Your task to perform on an android device: choose inbox layout in the gmail app Image 0: 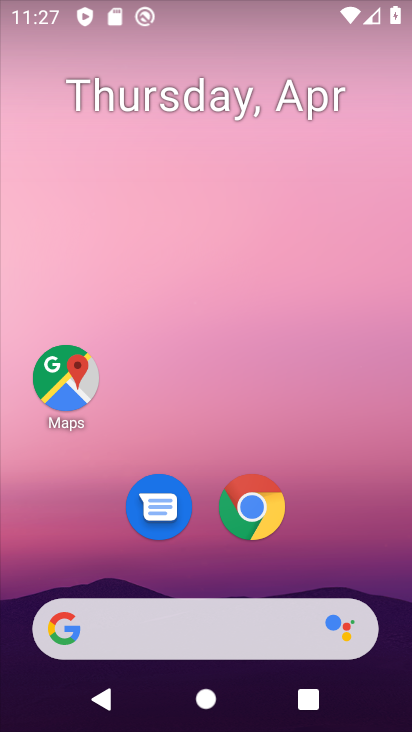
Step 0: drag from (214, 728) to (219, 92)
Your task to perform on an android device: choose inbox layout in the gmail app Image 1: 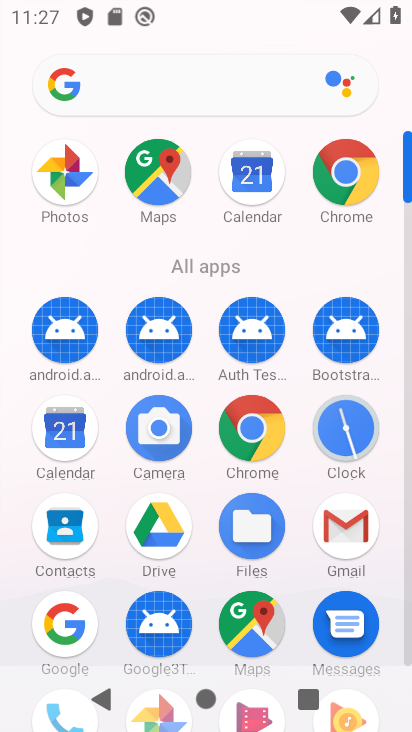
Step 1: click (352, 526)
Your task to perform on an android device: choose inbox layout in the gmail app Image 2: 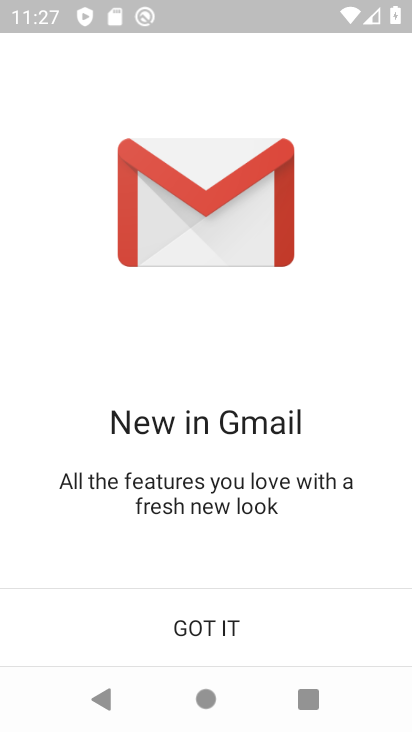
Step 2: click (191, 624)
Your task to perform on an android device: choose inbox layout in the gmail app Image 3: 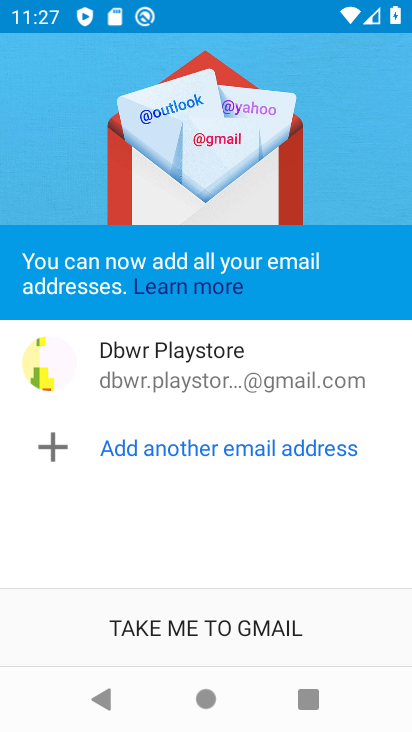
Step 3: click (202, 619)
Your task to perform on an android device: choose inbox layout in the gmail app Image 4: 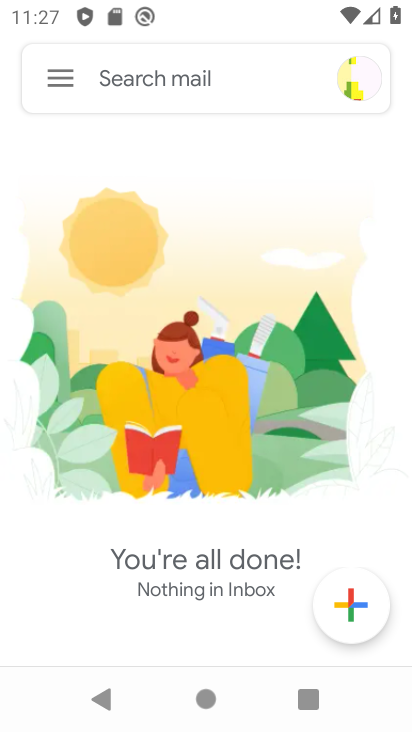
Step 4: click (62, 78)
Your task to perform on an android device: choose inbox layout in the gmail app Image 5: 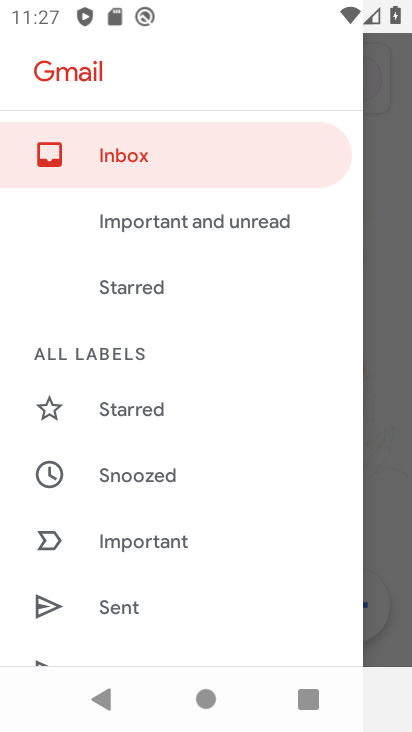
Step 5: drag from (125, 595) to (123, 143)
Your task to perform on an android device: choose inbox layout in the gmail app Image 6: 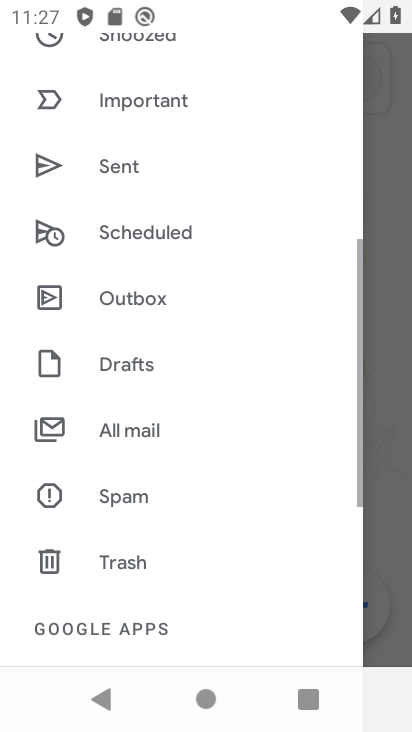
Step 6: drag from (165, 584) to (162, 208)
Your task to perform on an android device: choose inbox layout in the gmail app Image 7: 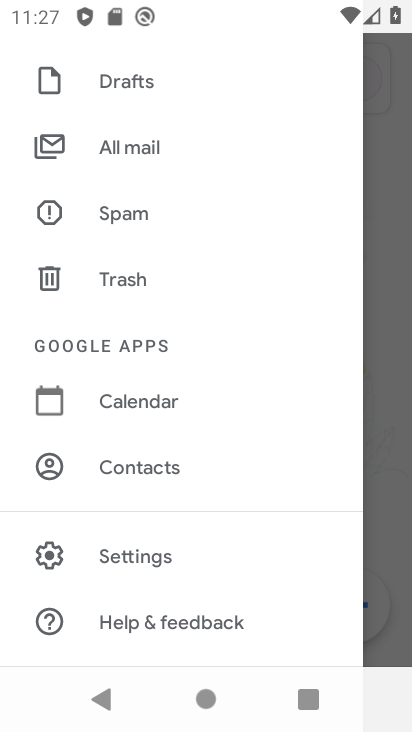
Step 7: click (145, 555)
Your task to perform on an android device: choose inbox layout in the gmail app Image 8: 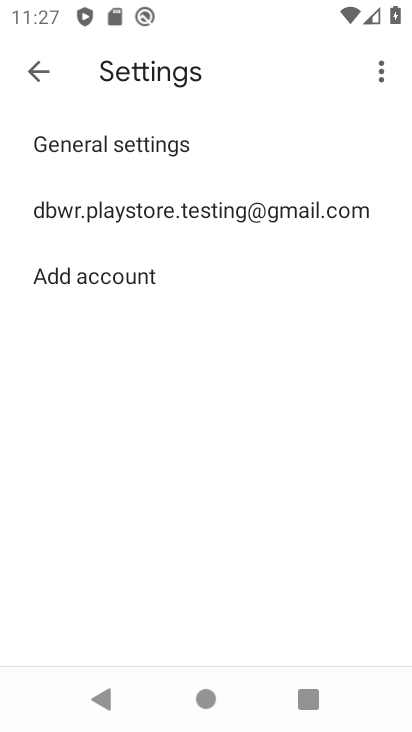
Step 8: click (201, 208)
Your task to perform on an android device: choose inbox layout in the gmail app Image 9: 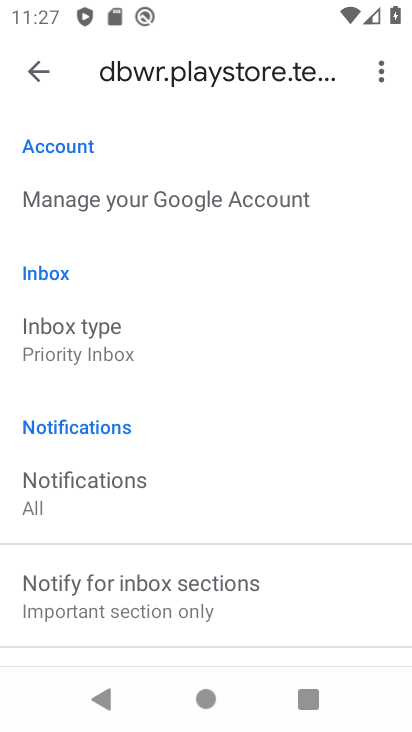
Step 9: click (75, 348)
Your task to perform on an android device: choose inbox layout in the gmail app Image 10: 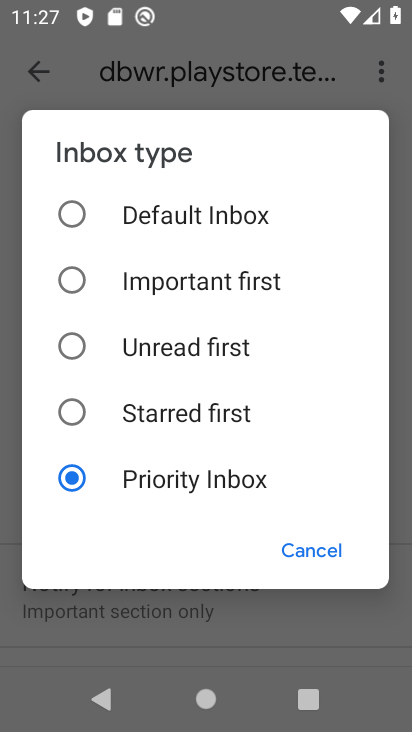
Step 10: click (75, 210)
Your task to perform on an android device: choose inbox layout in the gmail app Image 11: 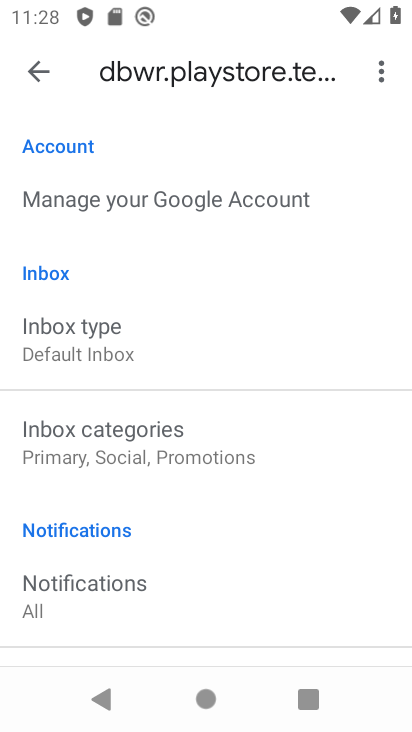
Step 11: task complete